Your task to perform on an android device: read, delete, or share a saved page in the chrome app Image 0: 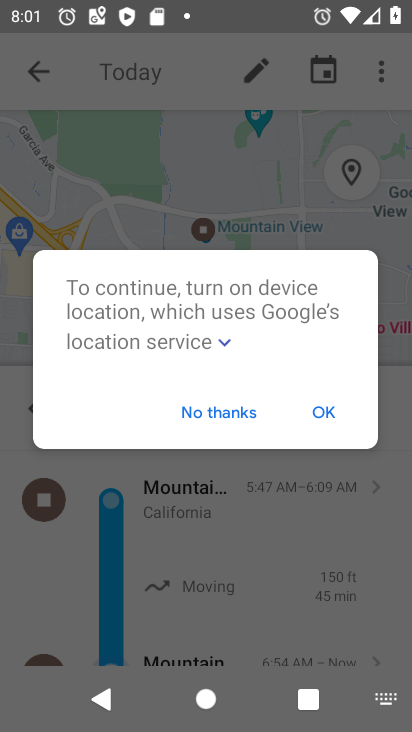
Step 0: press home button
Your task to perform on an android device: read, delete, or share a saved page in the chrome app Image 1: 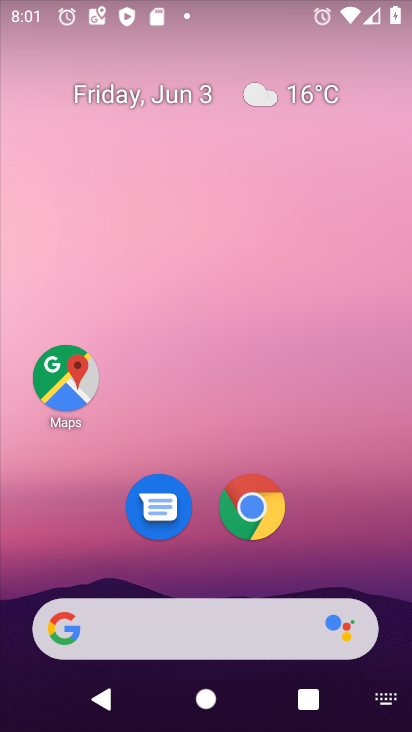
Step 1: click (229, 502)
Your task to perform on an android device: read, delete, or share a saved page in the chrome app Image 2: 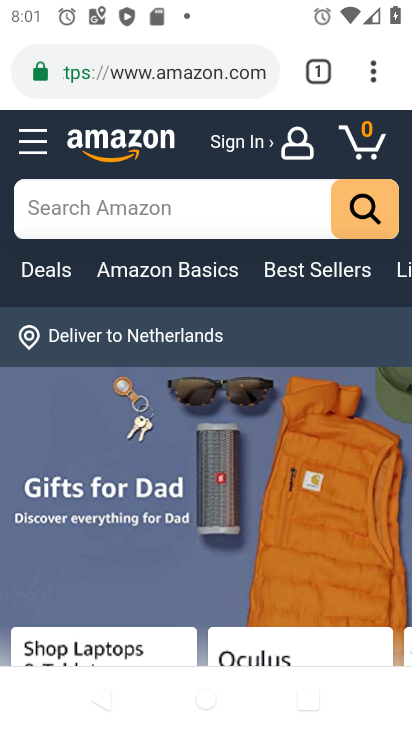
Step 2: click (370, 68)
Your task to perform on an android device: read, delete, or share a saved page in the chrome app Image 3: 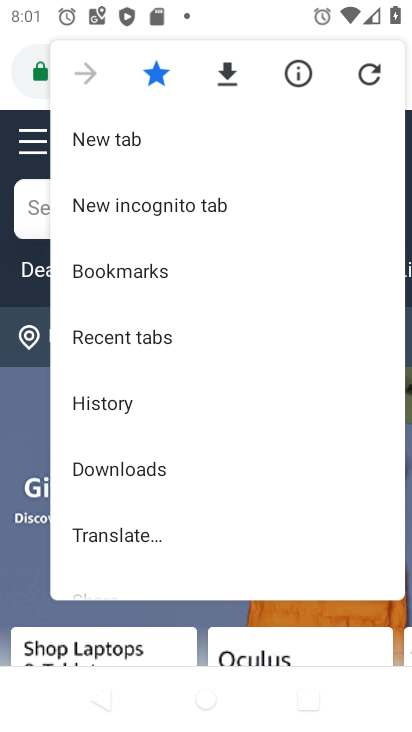
Step 3: click (184, 467)
Your task to perform on an android device: read, delete, or share a saved page in the chrome app Image 4: 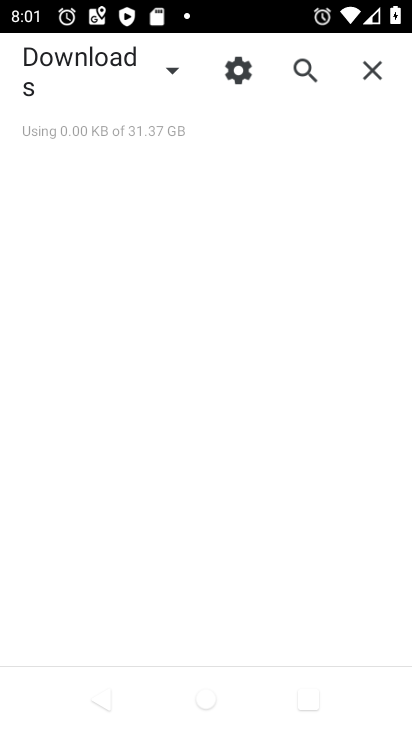
Step 4: click (104, 70)
Your task to perform on an android device: read, delete, or share a saved page in the chrome app Image 5: 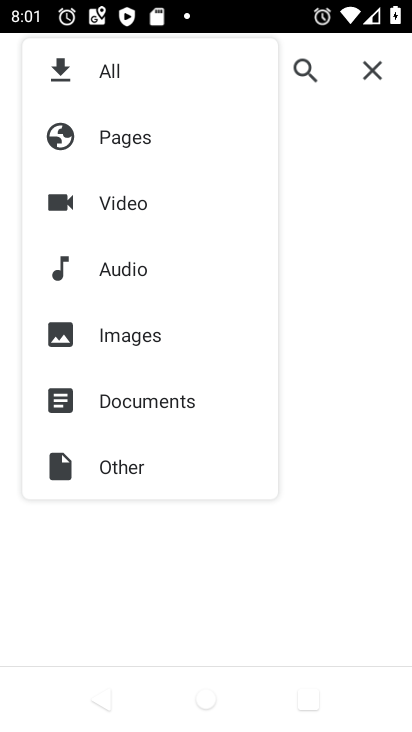
Step 5: click (130, 169)
Your task to perform on an android device: read, delete, or share a saved page in the chrome app Image 6: 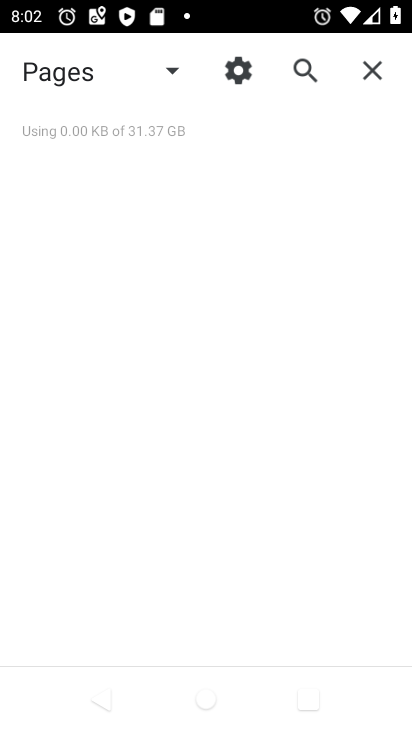
Step 6: task complete